Your task to perform on an android device: Go to Maps Image 0: 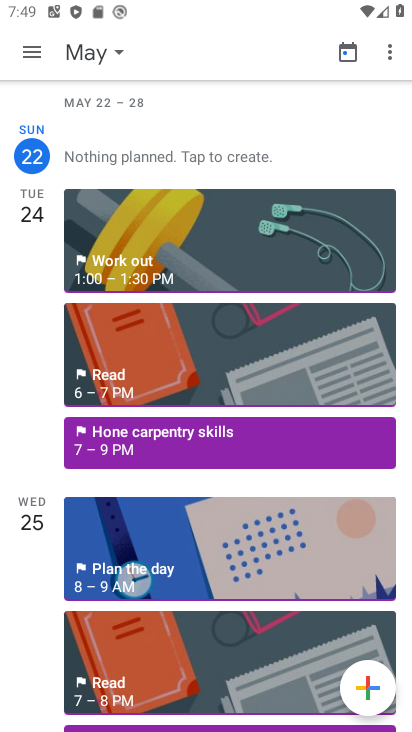
Step 0: press home button
Your task to perform on an android device: Go to Maps Image 1: 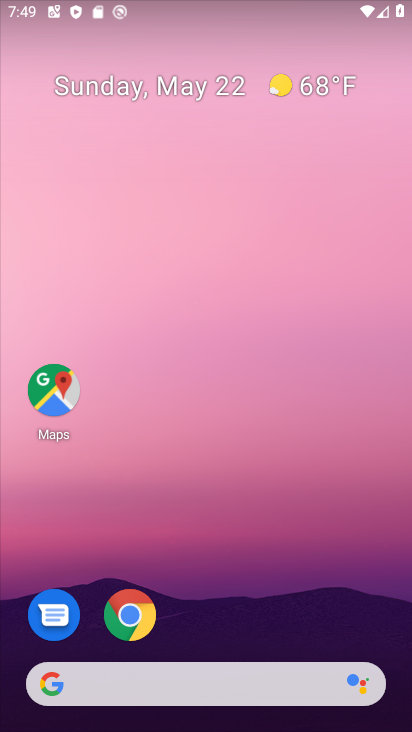
Step 1: click (56, 376)
Your task to perform on an android device: Go to Maps Image 2: 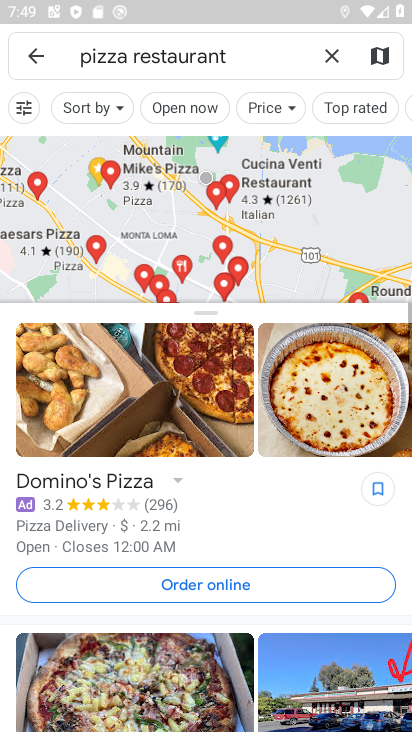
Step 2: click (42, 46)
Your task to perform on an android device: Go to Maps Image 3: 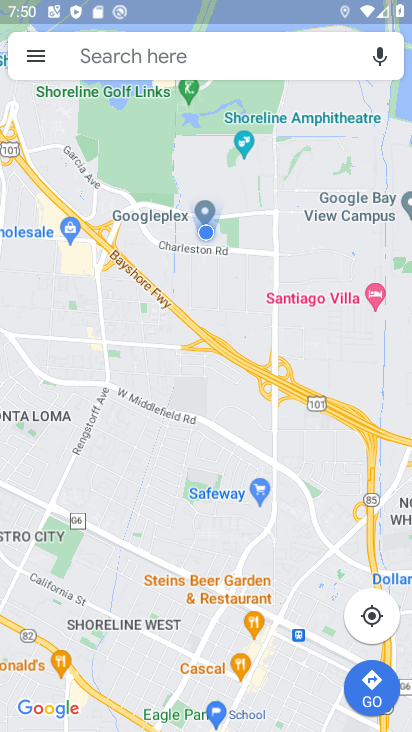
Step 3: task complete